Your task to perform on an android device: What's the weather going to be this weekend? Image 0: 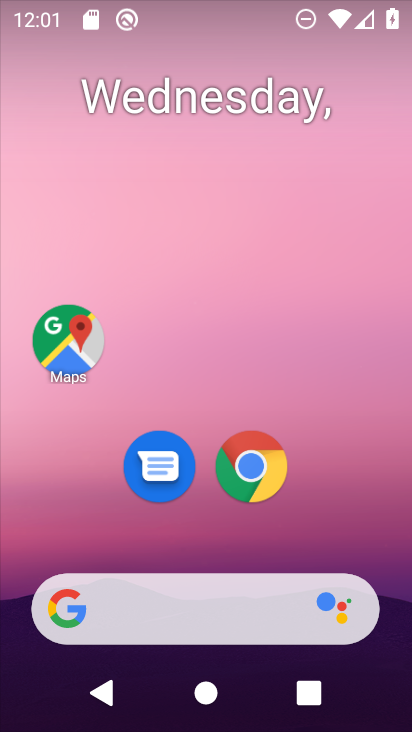
Step 0: drag from (54, 234) to (396, 215)
Your task to perform on an android device: What's the weather going to be this weekend? Image 1: 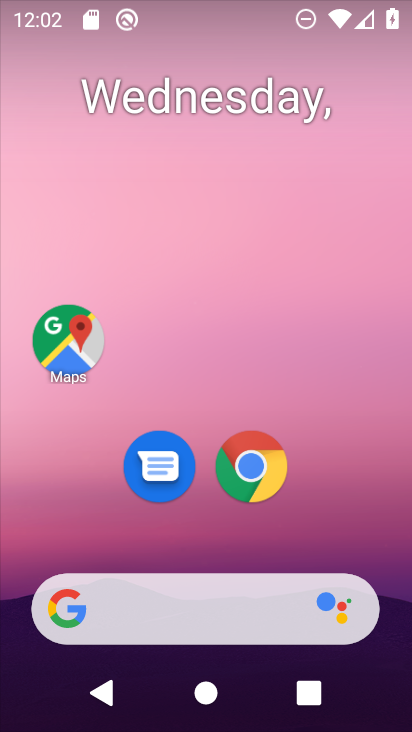
Step 1: drag from (11, 316) to (404, 246)
Your task to perform on an android device: What's the weather going to be this weekend? Image 2: 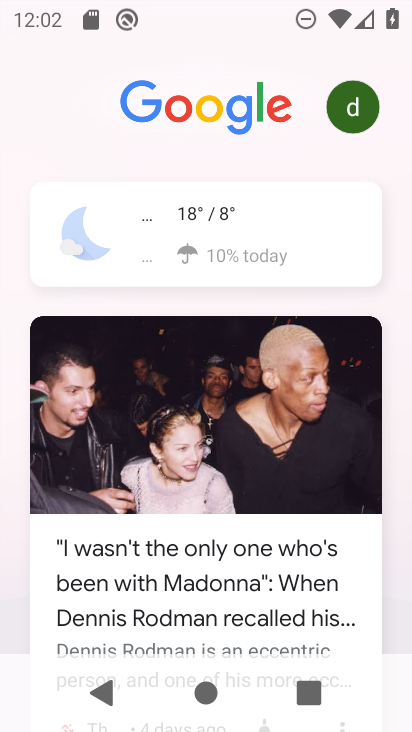
Step 2: click (259, 215)
Your task to perform on an android device: What's the weather going to be this weekend? Image 3: 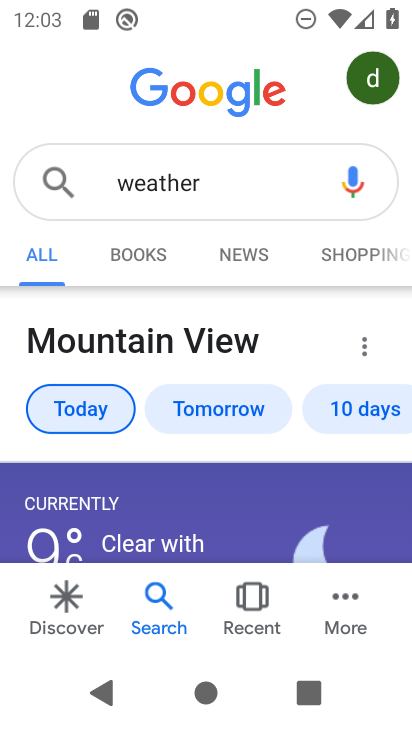
Step 3: click (345, 407)
Your task to perform on an android device: What's the weather going to be this weekend? Image 4: 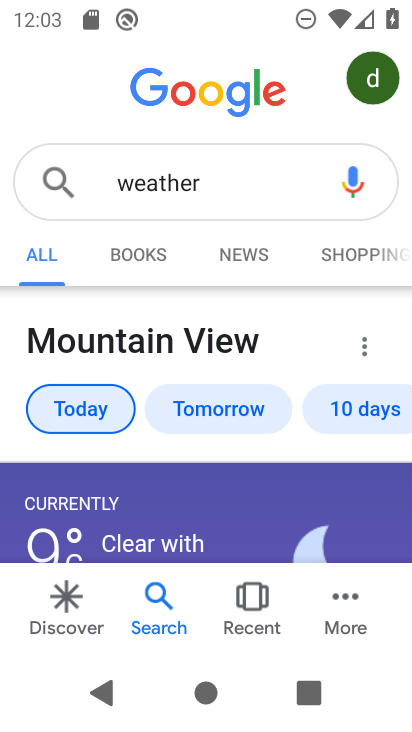
Step 4: click (363, 403)
Your task to perform on an android device: What's the weather going to be this weekend? Image 5: 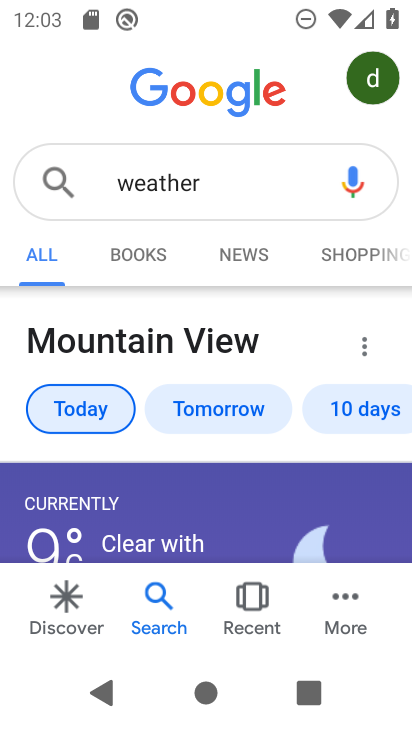
Step 5: click (363, 406)
Your task to perform on an android device: What's the weather going to be this weekend? Image 6: 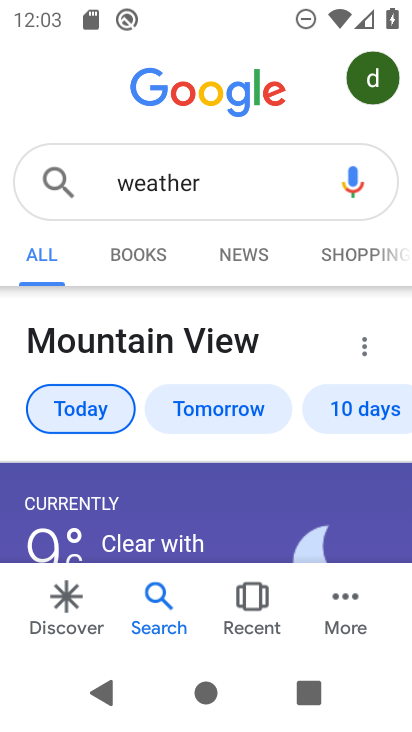
Step 6: drag from (257, 528) to (254, 209)
Your task to perform on an android device: What's the weather going to be this weekend? Image 7: 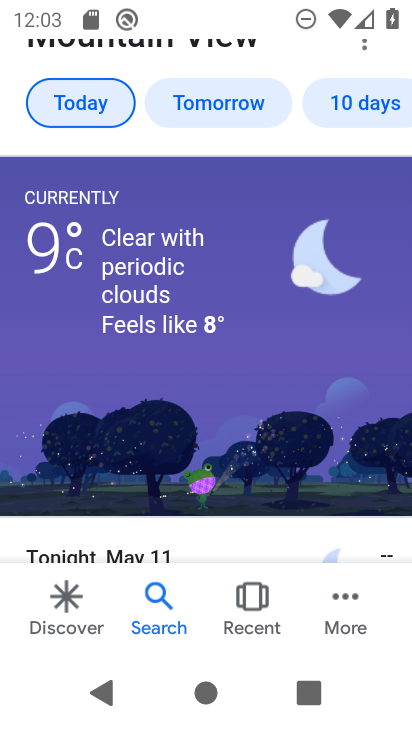
Step 7: click (366, 113)
Your task to perform on an android device: What's the weather going to be this weekend? Image 8: 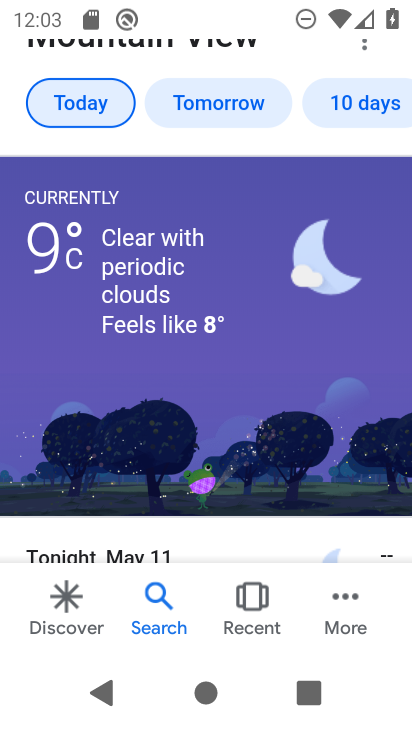
Step 8: click (24, 290)
Your task to perform on an android device: What's the weather going to be this weekend? Image 9: 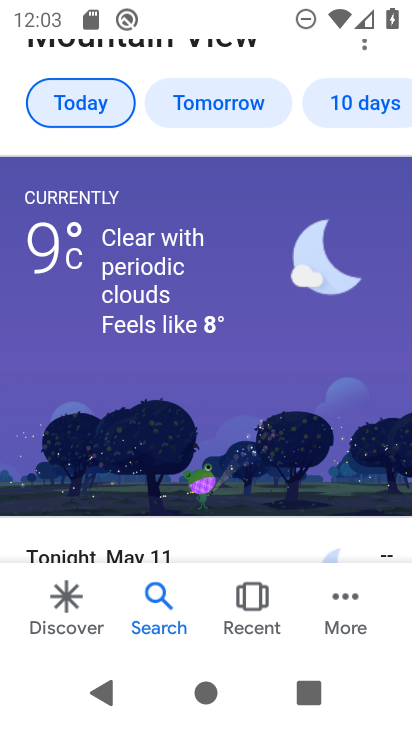
Step 9: task complete